Your task to perform on an android device: check the backup settings in the google photos Image 0: 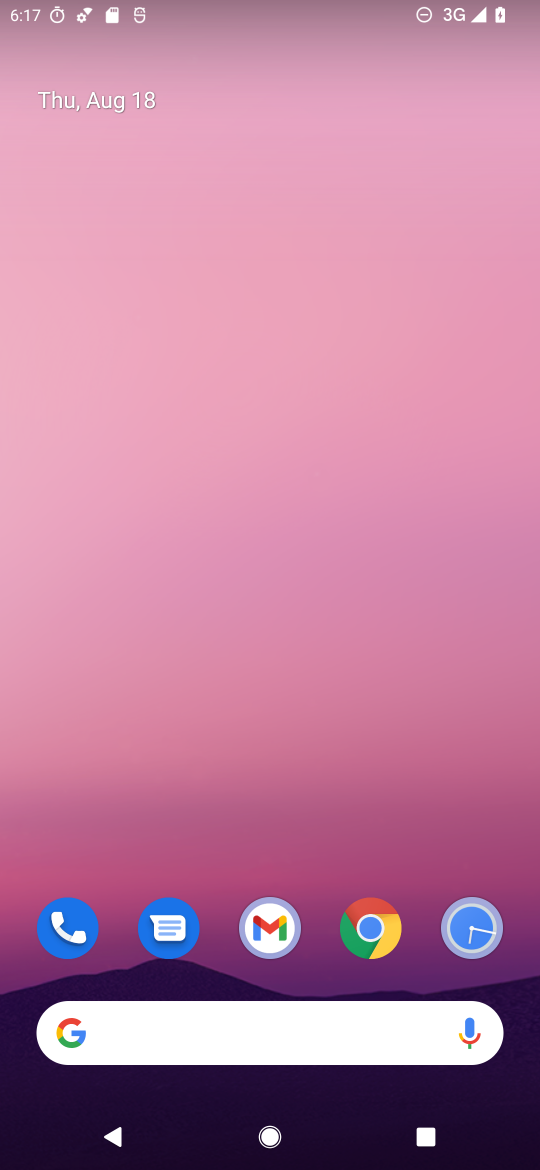
Step 0: drag from (314, 856) to (338, 57)
Your task to perform on an android device: check the backup settings in the google photos Image 1: 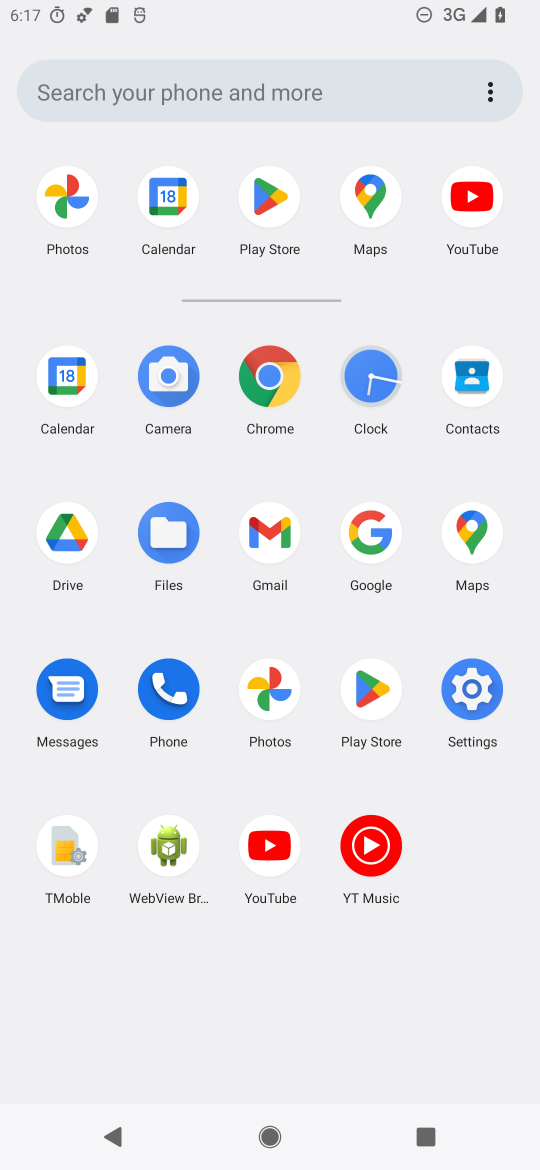
Step 1: click (284, 665)
Your task to perform on an android device: check the backup settings in the google photos Image 2: 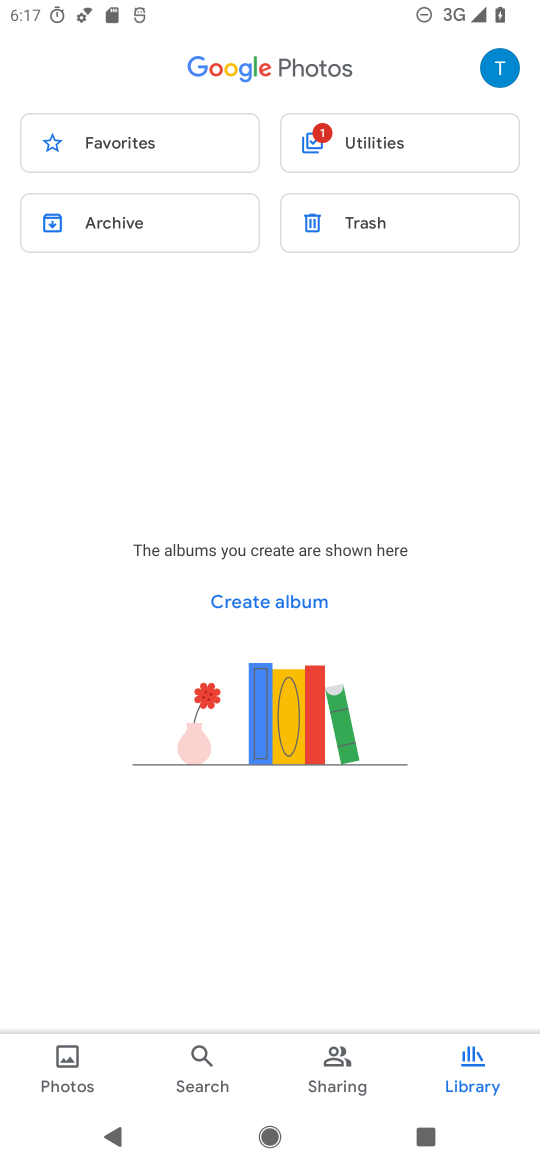
Step 2: click (514, 52)
Your task to perform on an android device: check the backup settings in the google photos Image 3: 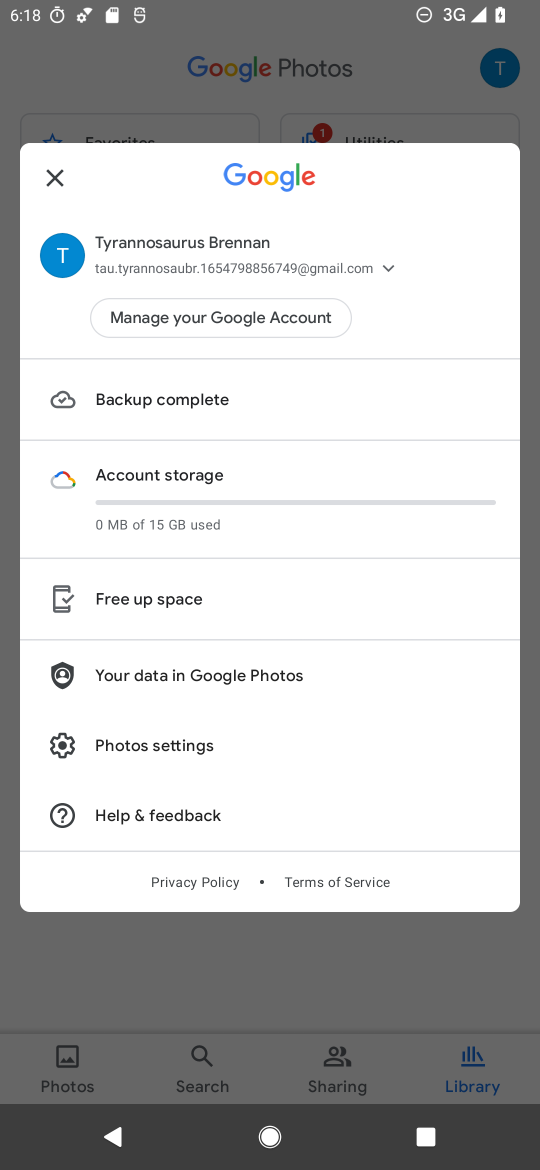
Step 3: click (189, 247)
Your task to perform on an android device: check the backup settings in the google photos Image 4: 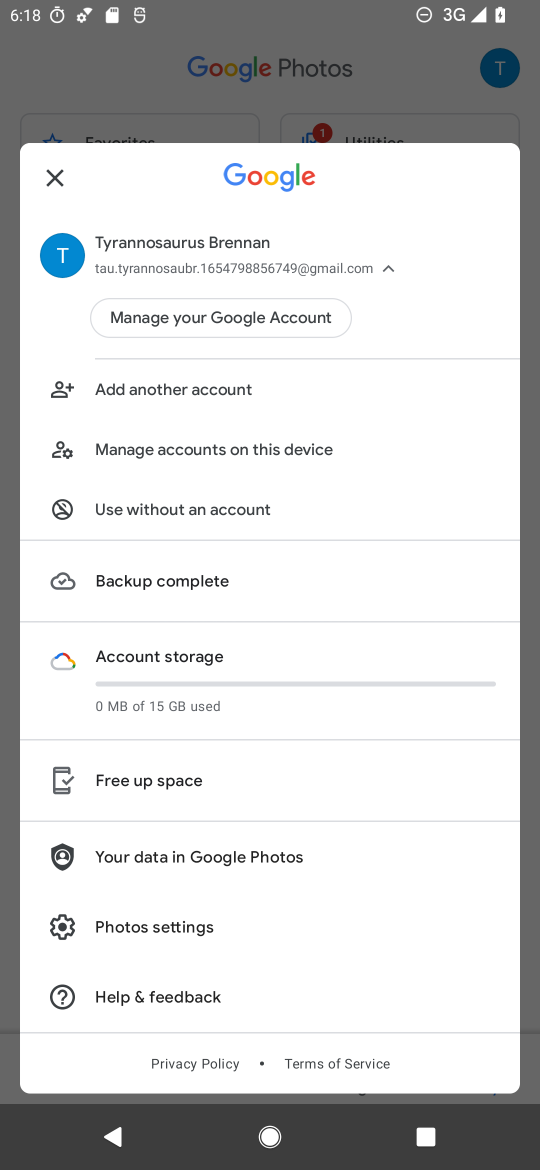
Step 4: click (170, 569)
Your task to perform on an android device: check the backup settings in the google photos Image 5: 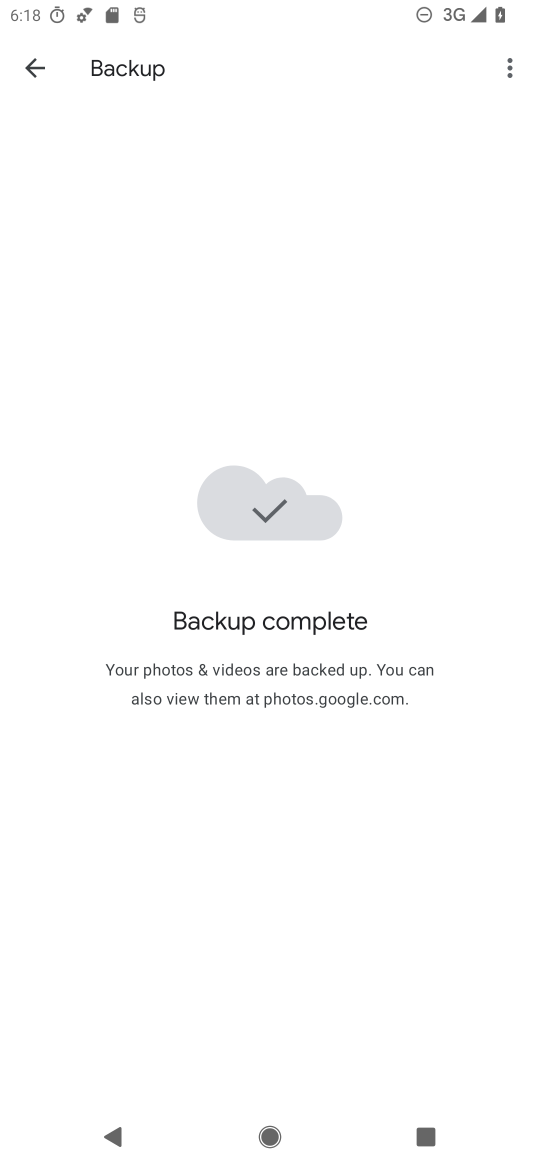
Step 5: click (18, 71)
Your task to perform on an android device: check the backup settings in the google photos Image 6: 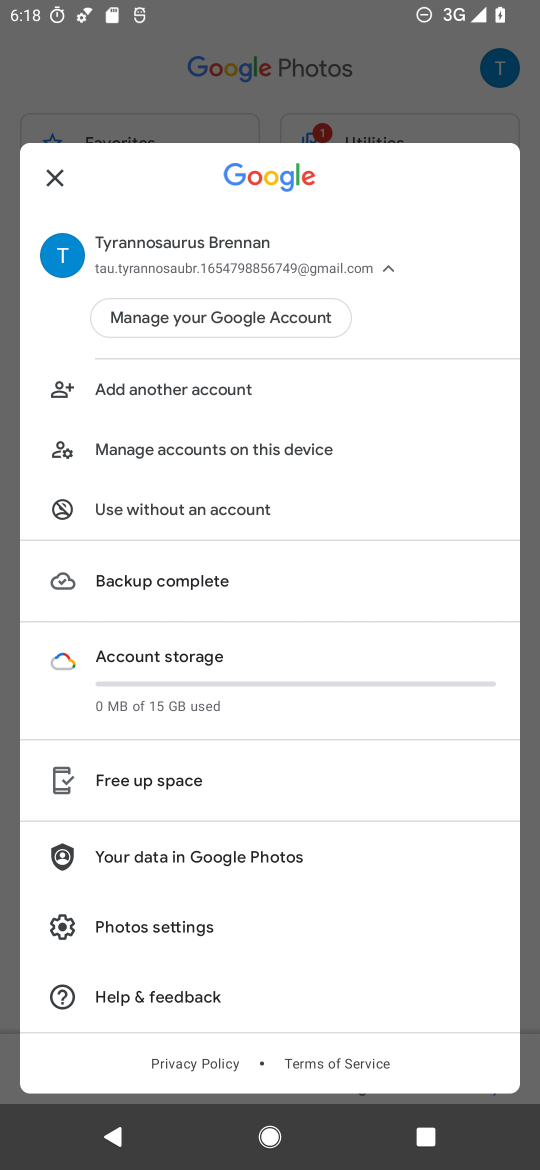
Step 6: click (186, 934)
Your task to perform on an android device: check the backup settings in the google photos Image 7: 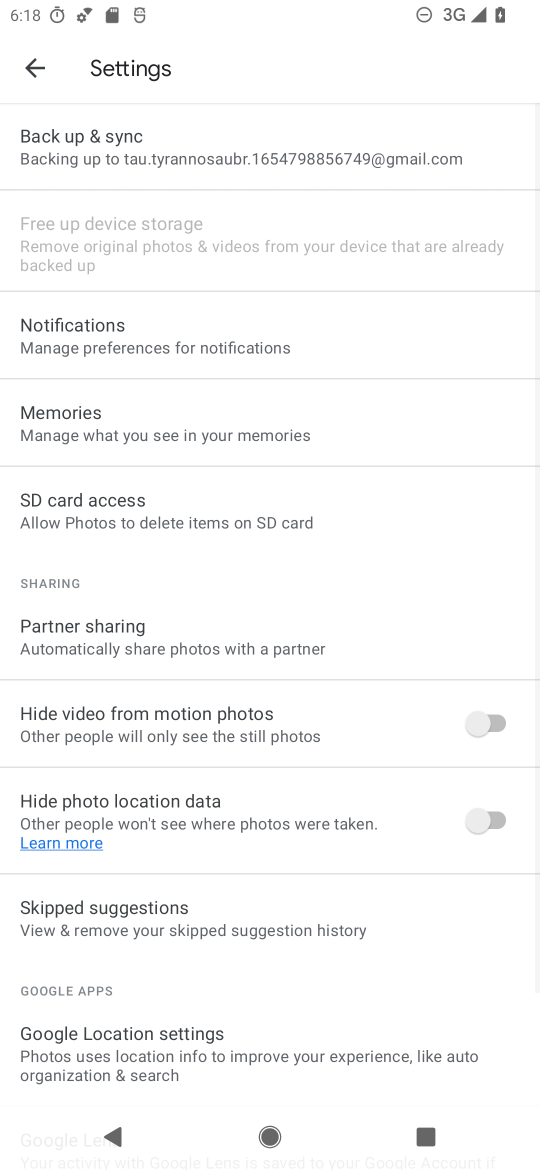
Step 7: click (307, 139)
Your task to perform on an android device: check the backup settings in the google photos Image 8: 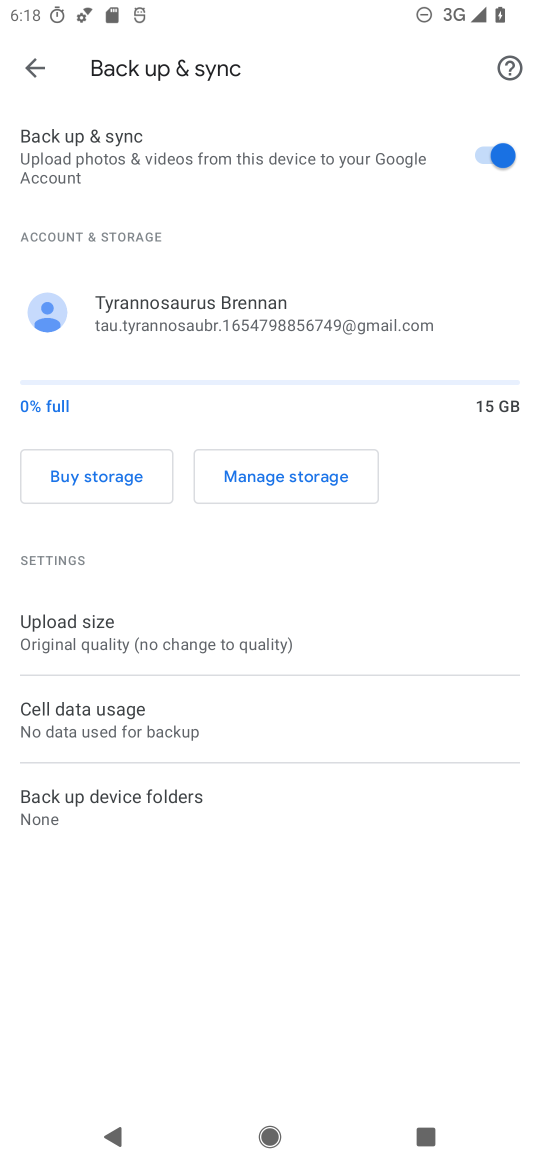
Step 8: task complete